Your task to perform on an android device: Go to calendar. Show me events next week Image 0: 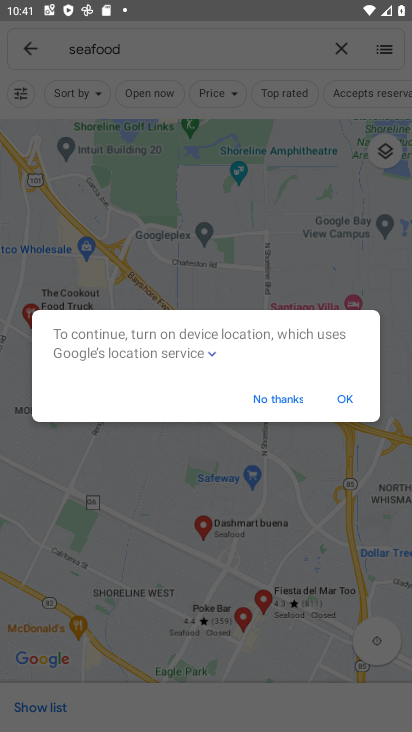
Step 0: click (350, 410)
Your task to perform on an android device: Go to calendar. Show me events next week Image 1: 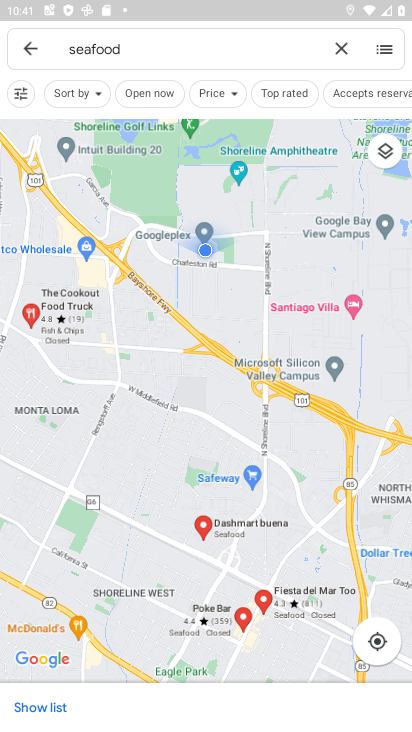
Step 1: press back button
Your task to perform on an android device: Go to calendar. Show me events next week Image 2: 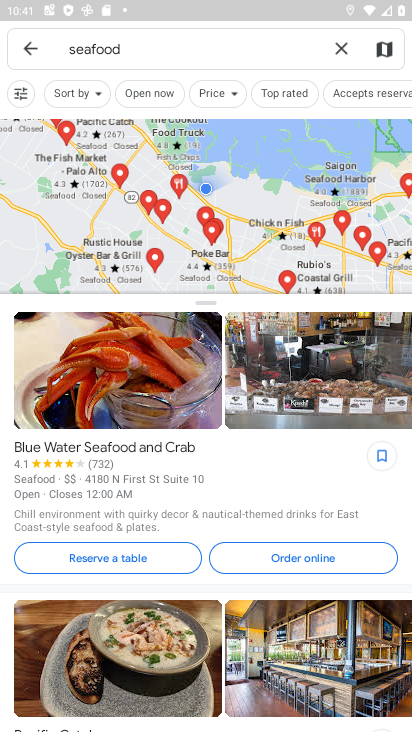
Step 2: press home button
Your task to perform on an android device: Go to calendar. Show me events next week Image 3: 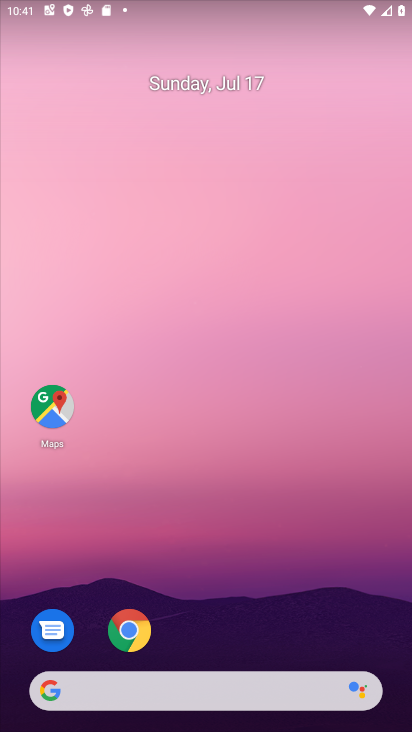
Step 3: drag from (239, 634) to (239, 35)
Your task to perform on an android device: Go to calendar. Show me events next week Image 4: 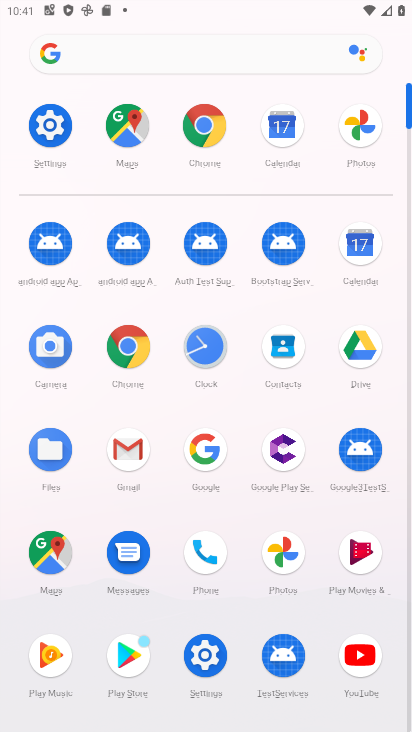
Step 4: click (361, 267)
Your task to perform on an android device: Go to calendar. Show me events next week Image 5: 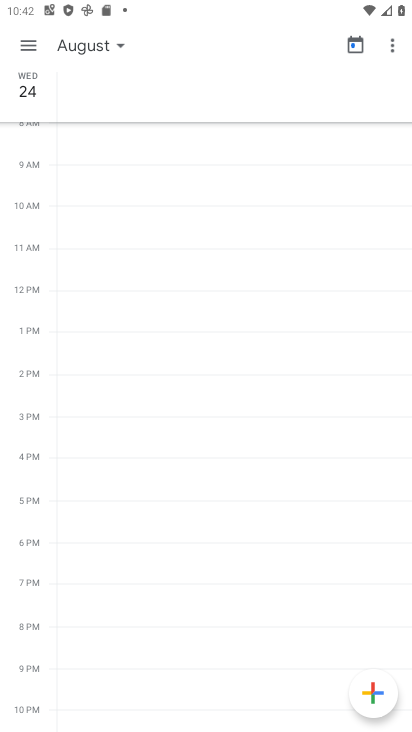
Step 5: task complete